Your task to perform on an android device: turn on bluetooth scan Image 0: 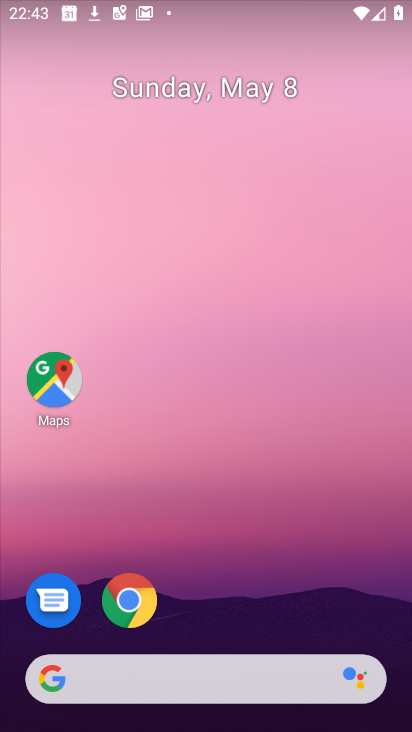
Step 0: drag from (332, 701) to (293, 376)
Your task to perform on an android device: turn on bluetooth scan Image 1: 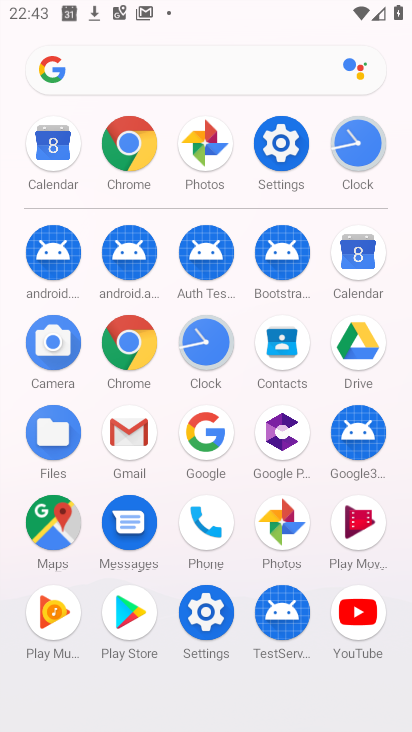
Step 1: click (271, 155)
Your task to perform on an android device: turn on bluetooth scan Image 2: 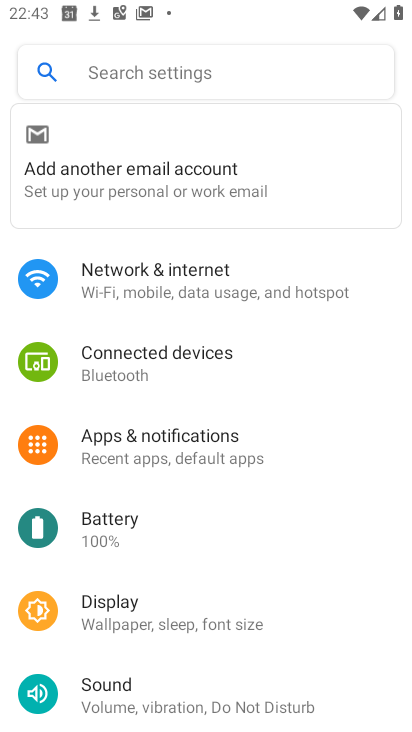
Step 2: click (165, 74)
Your task to perform on an android device: turn on bluetooth scan Image 3: 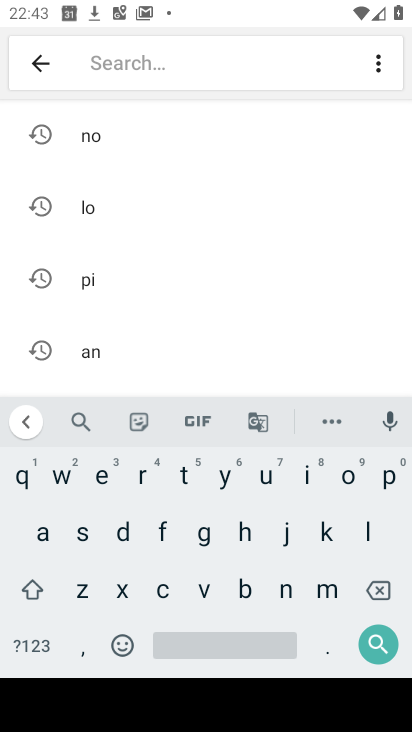
Step 3: click (142, 218)
Your task to perform on an android device: turn on bluetooth scan Image 4: 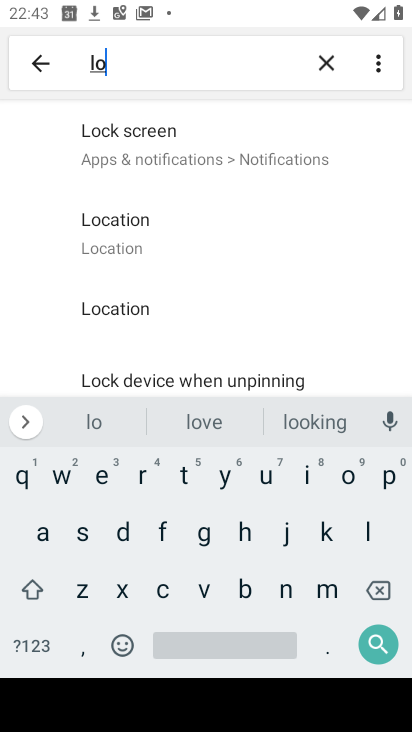
Step 4: click (132, 246)
Your task to perform on an android device: turn on bluetooth scan Image 5: 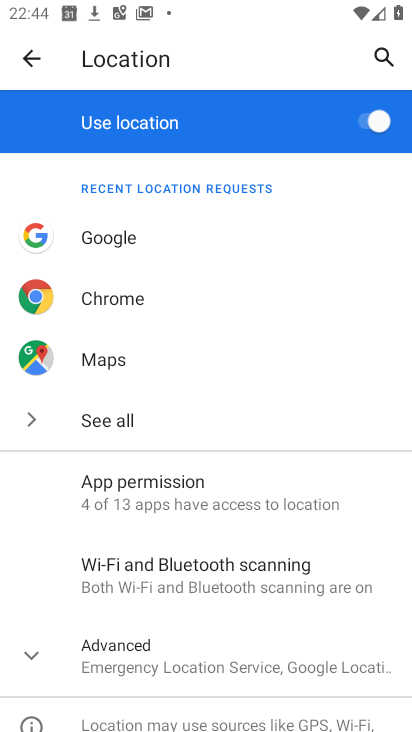
Step 5: click (184, 575)
Your task to perform on an android device: turn on bluetooth scan Image 6: 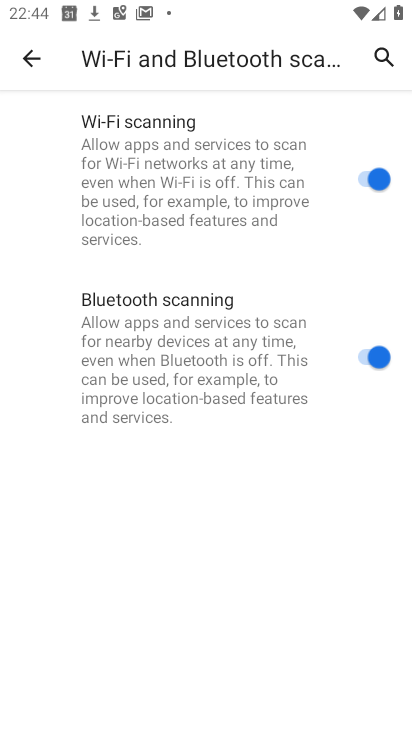
Step 6: task complete